Your task to perform on an android device: refresh tabs in the chrome app Image 0: 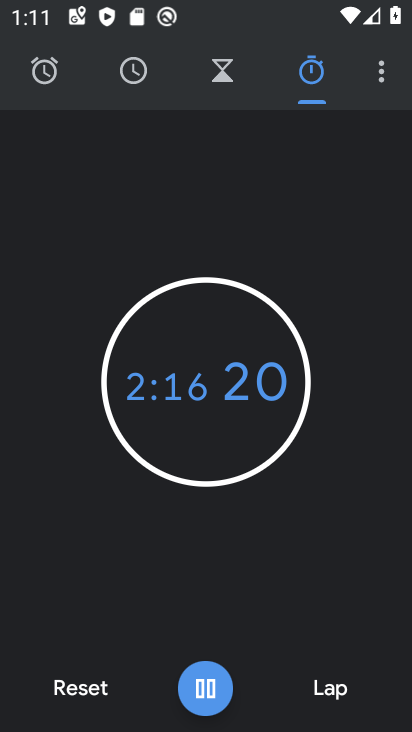
Step 0: press home button
Your task to perform on an android device: refresh tabs in the chrome app Image 1: 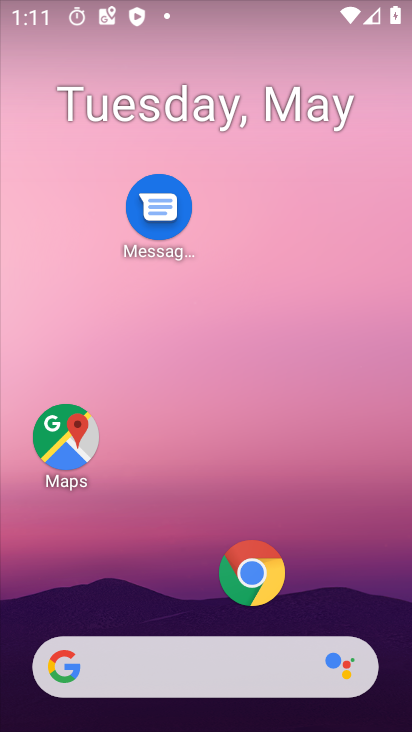
Step 1: drag from (178, 594) to (227, 111)
Your task to perform on an android device: refresh tabs in the chrome app Image 2: 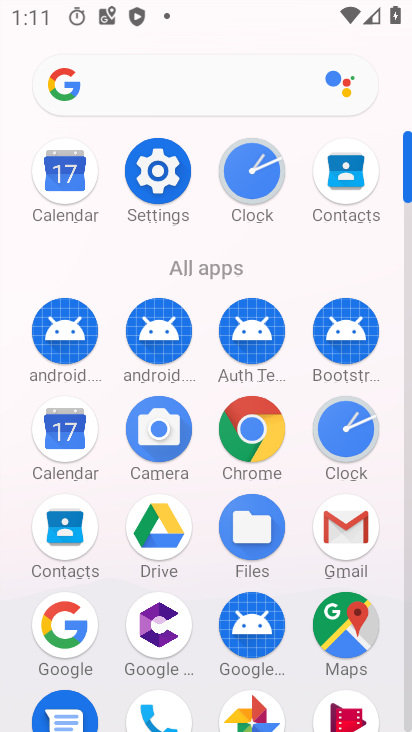
Step 2: click (230, 445)
Your task to perform on an android device: refresh tabs in the chrome app Image 3: 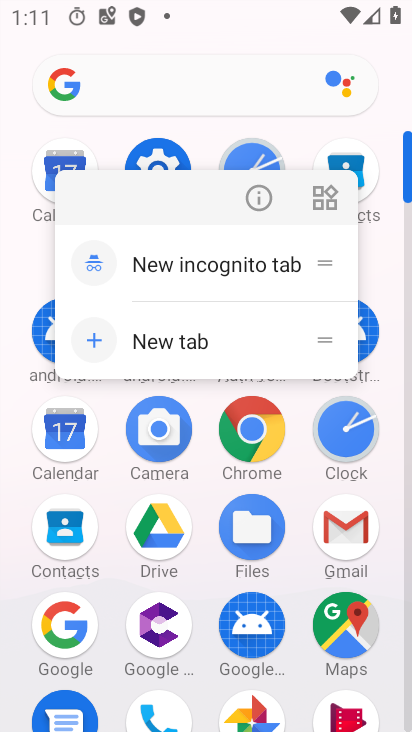
Step 3: click (263, 419)
Your task to perform on an android device: refresh tabs in the chrome app Image 4: 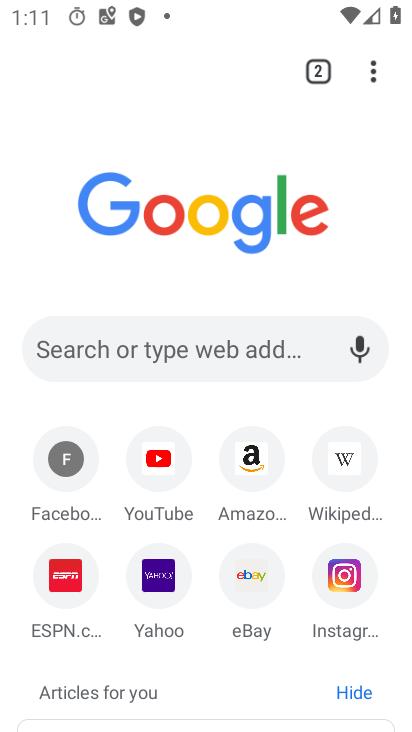
Step 4: click (376, 77)
Your task to perform on an android device: refresh tabs in the chrome app Image 5: 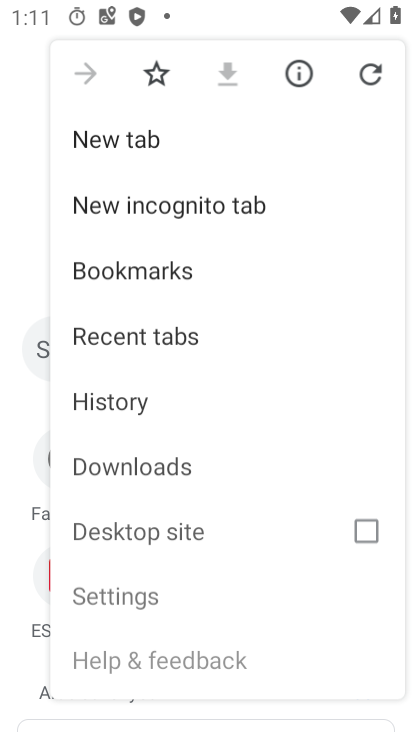
Step 5: click (370, 60)
Your task to perform on an android device: refresh tabs in the chrome app Image 6: 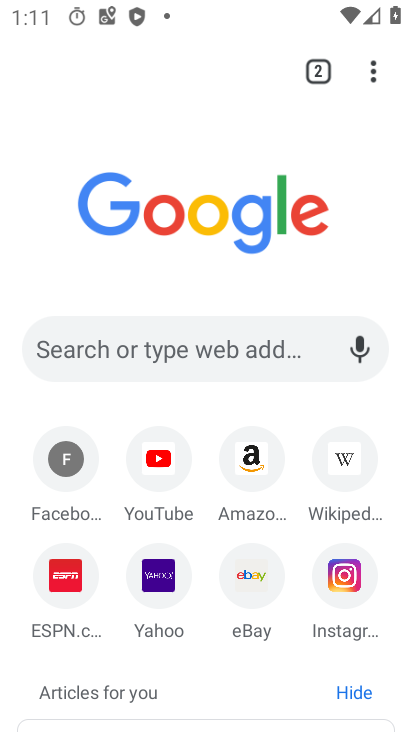
Step 6: click (366, 68)
Your task to perform on an android device: refresh tabs in the chrome app Image 7: 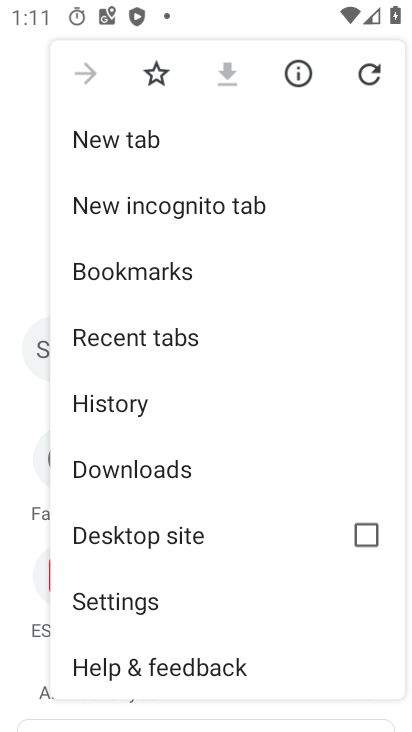
Step 7: click (372, 70)
Your task to perform on an android device: refresh tabs in the chrome app Image 8: 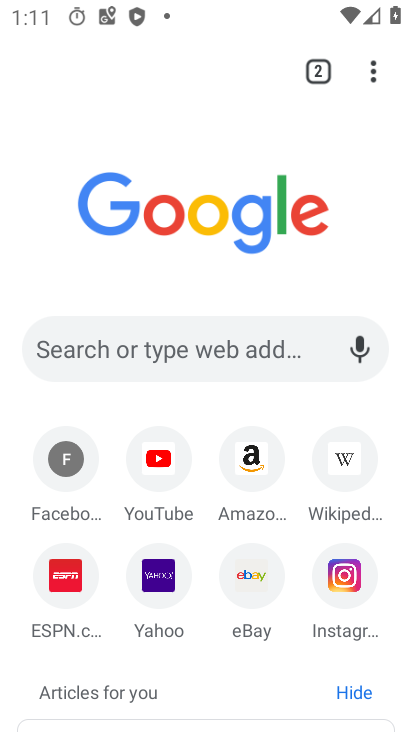
Step 8: task complete